Your task to perform on an android device: Open Android settings Image 0: 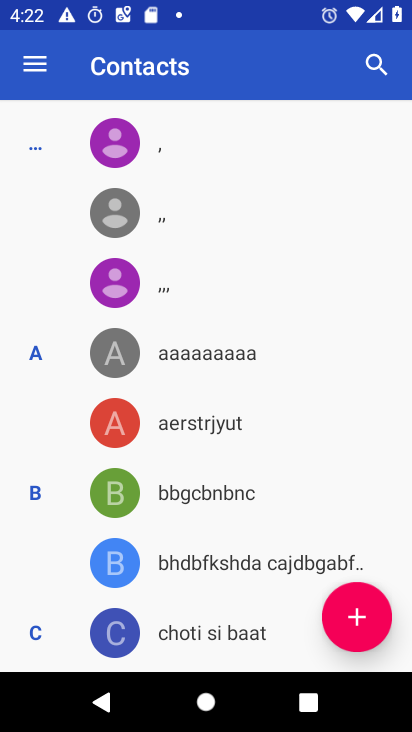
Step 0: press home button
Your task to perform on an android device: Open Android settings Image 1: 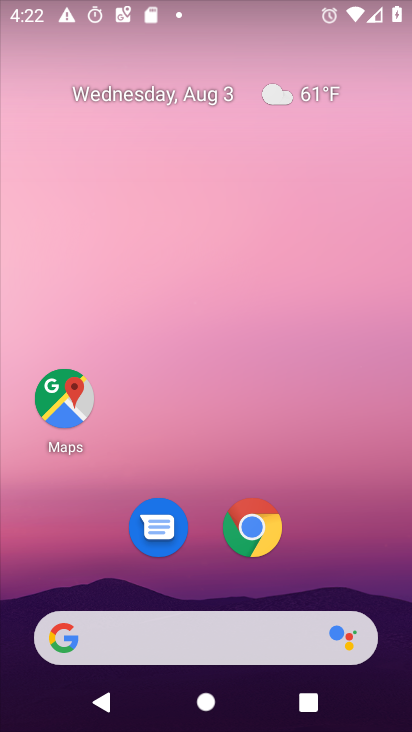
Step 1: drag from (327, 559) to (338, 6)
Your task to perform on an android device: Open Android settings Image 2: 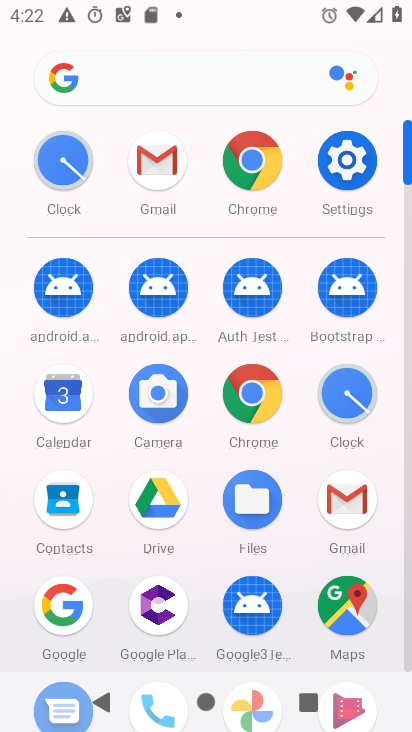
Step 2: click (349, 152)
Your task to perform on an android device: Open Android settings Image 3: 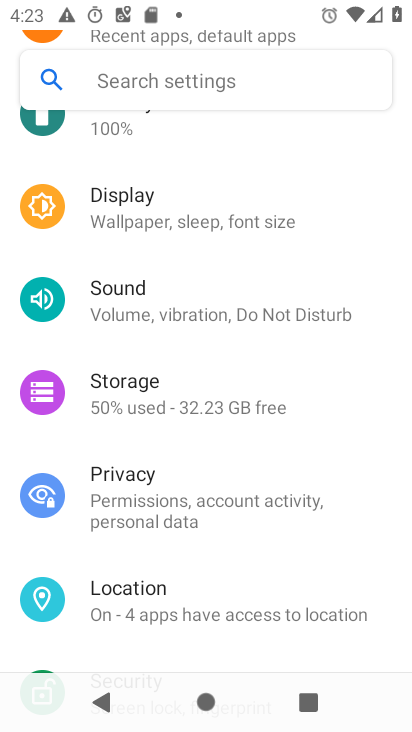
Step 3: task complete